Your task to perform on an android device: Open Google Maps Image 0: 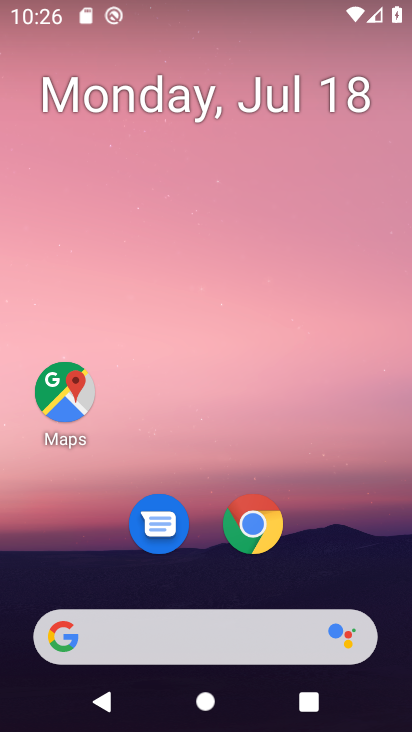
Step 0: click (64, 387)
Your task to perform on an android device: Open Google Maps Image 1: 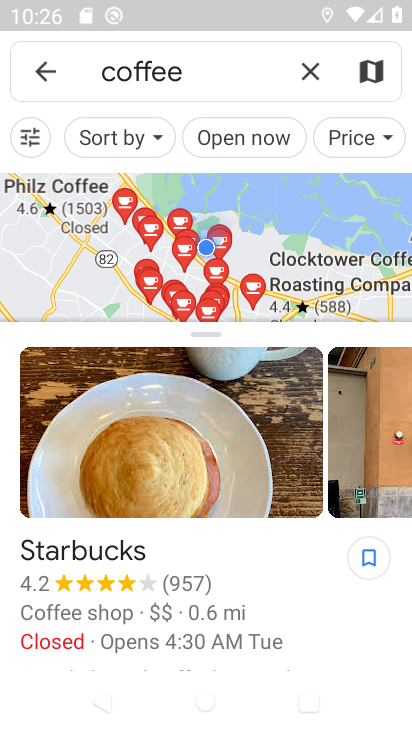
Step 1: click (309, 70)
Your task to perform on an android device: Open Google Maps Image 2: 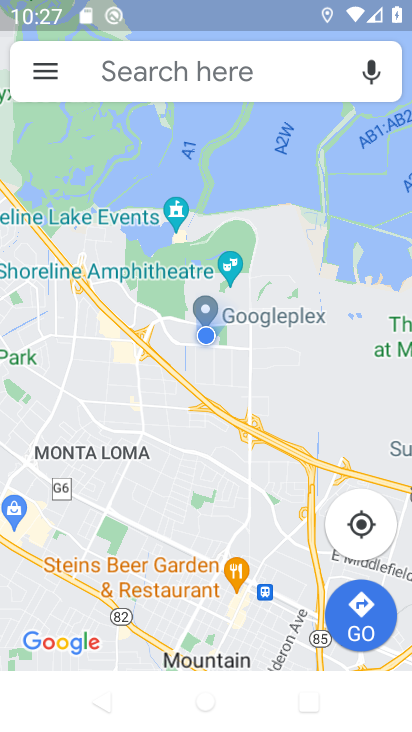
Step 2: task complete